Your task to perform on an android device: Open Chrome and go to the settings page Image 0: 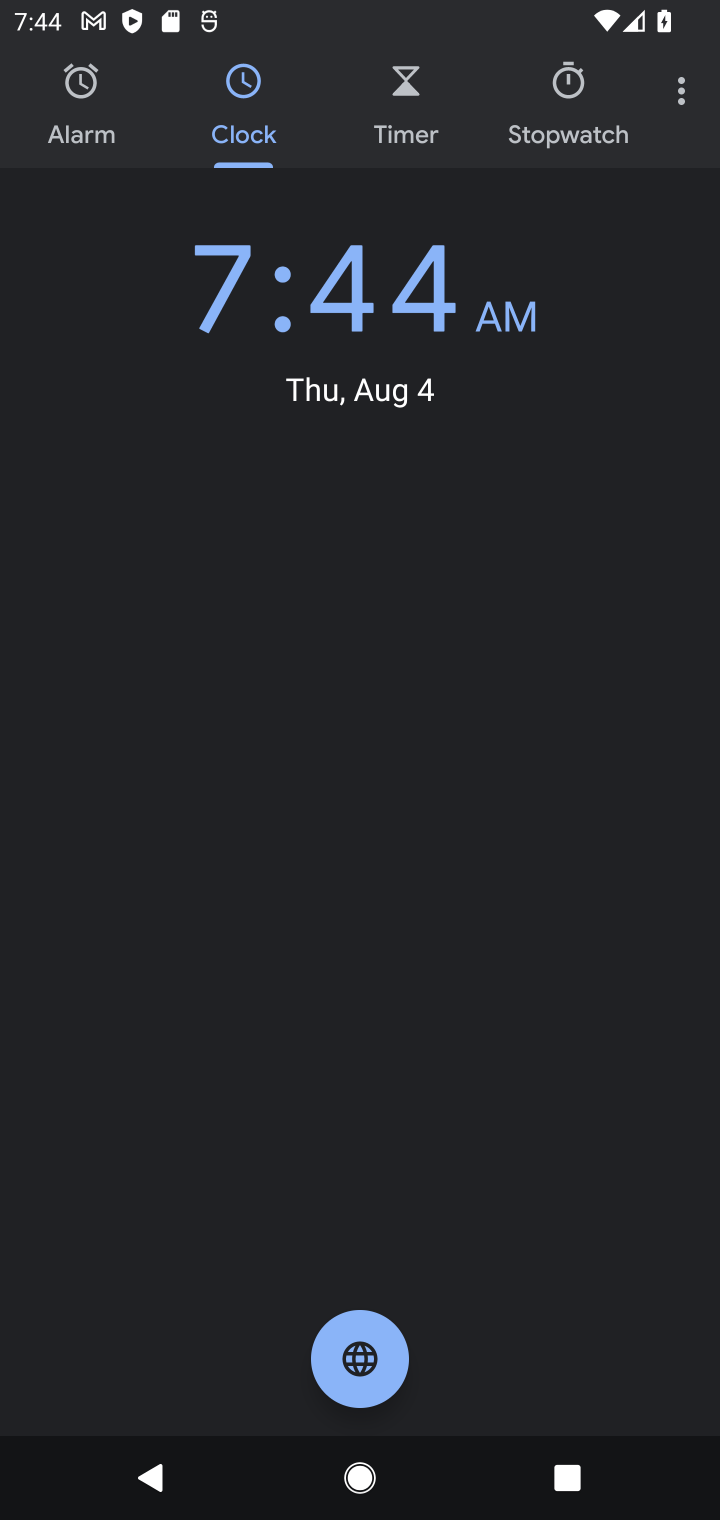
Step 0: press home button
Your task to perform on an android device: Open Chrome and go to the settings page Image 1: 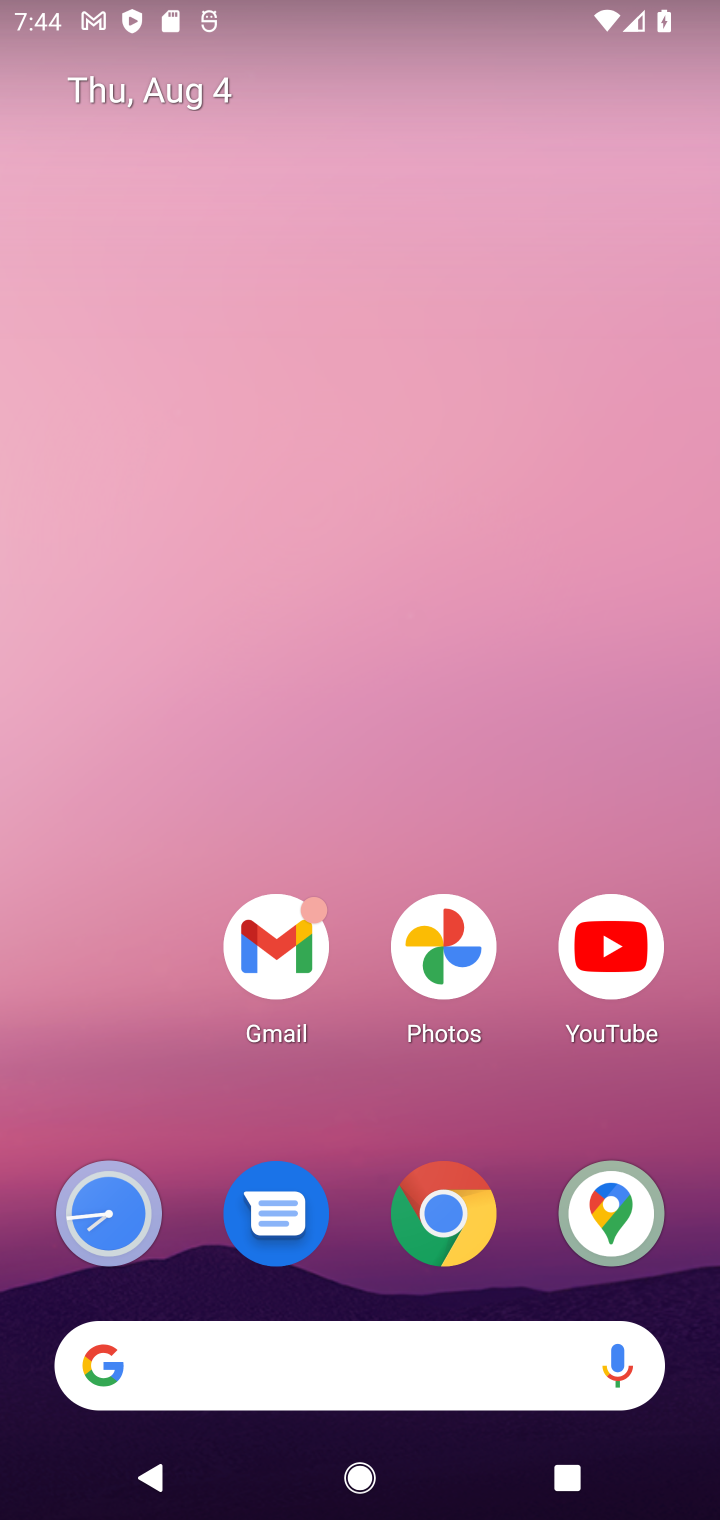
Step 1: click (444, 1226)
Your task to perform on an android device: Open Chrome and go to the settings page Image 2: 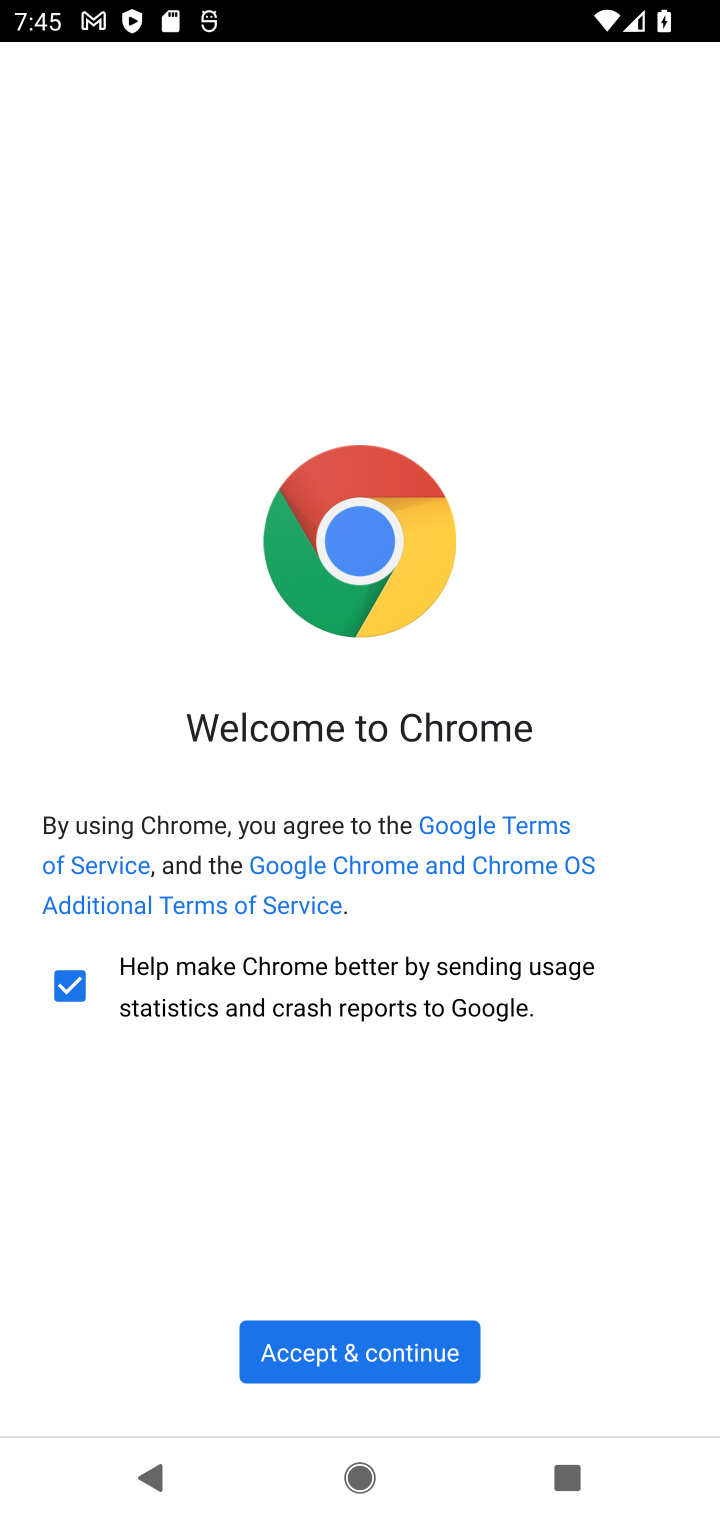
Step 2: task complete